Your task to perform on an android device: open chrome and create a bookmark for the current page Image 0: 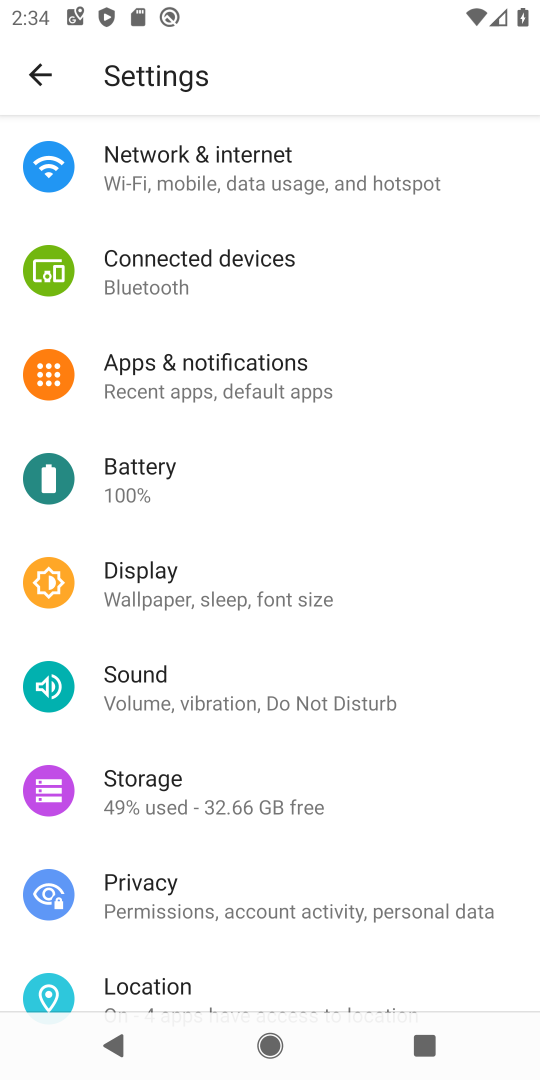
Step 0: press home button
Your task to perform on an android device: open chrome and create a bookmark for the current page Image 1: 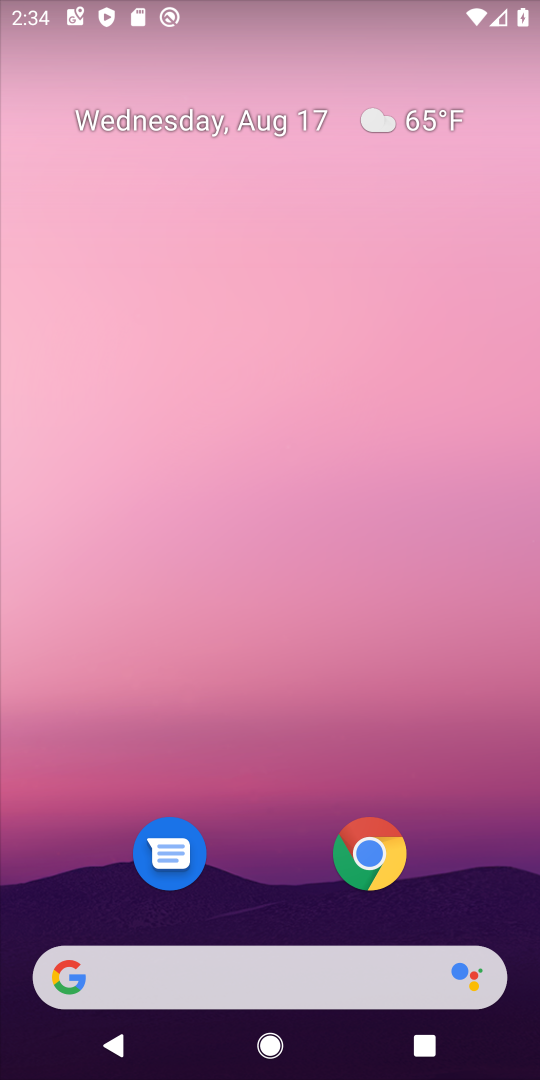
Step 1: drag from (263, 885) to (307, 92)
Your task to perform on an android device: open chrome and create a bookmark for the current page Image 2: 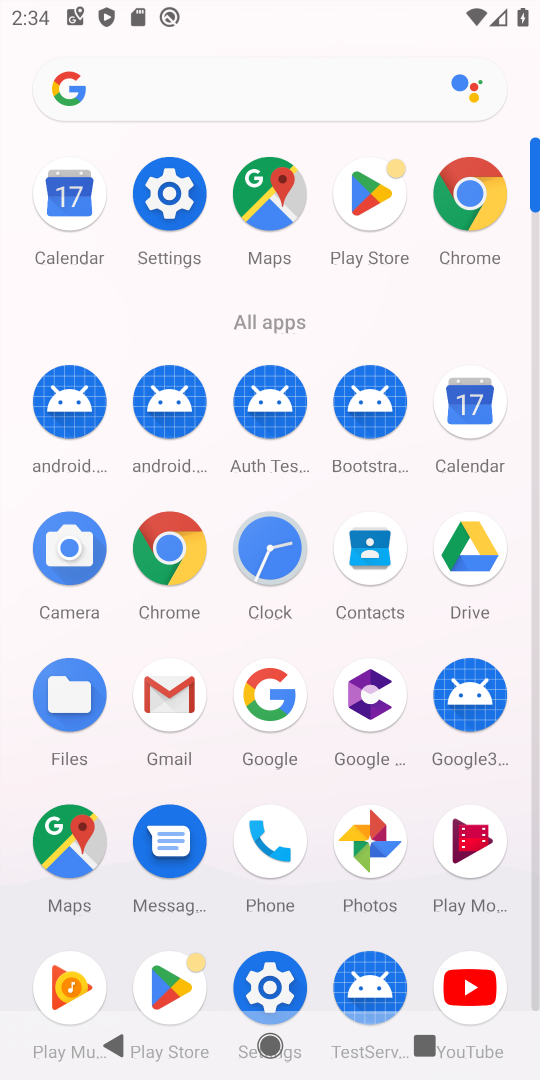
Step 2: click (167, 533)
Your task to perform on an android device: open chrome and create a bookmark for the current page Image 3: 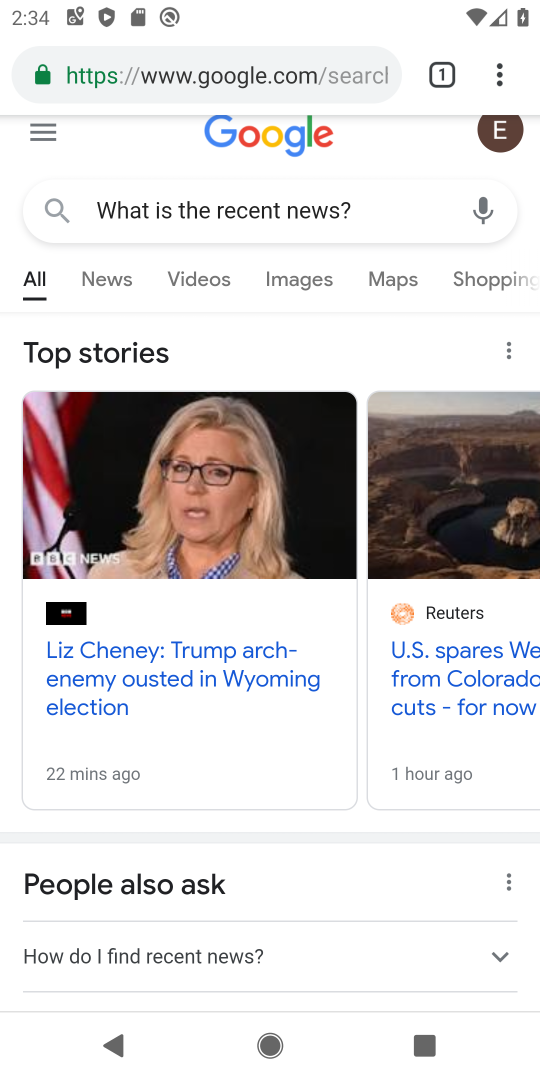
Step 3: task complete